Your task to perform on an android device: Open Google Maps Image 0: 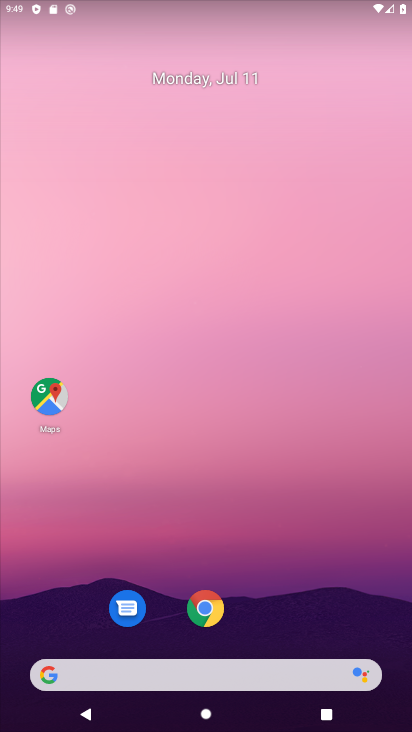
Step 0: click (32, 397)
Your task to perform on an android device: Open Google Maps Image 1: 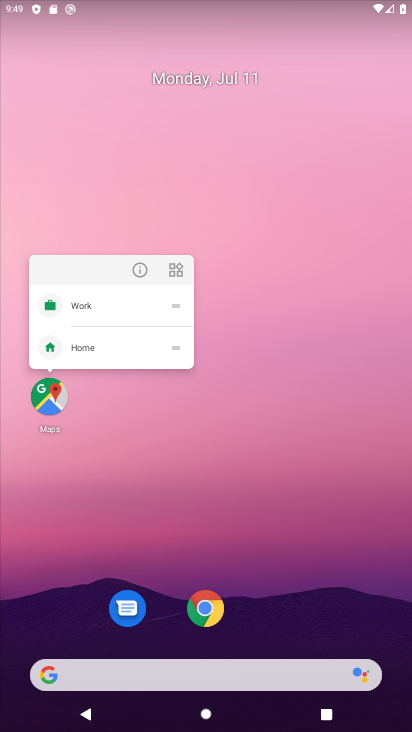
Step 1: click (33, 398)
Your task to perform on an android device: Open Google Maps Image 2: 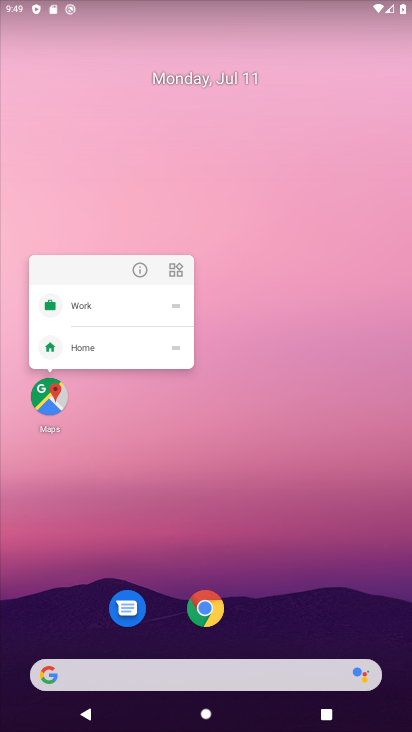
Step 2: click (49, 402)
Your task to perform on an android device: Open Google Maps Image 3: 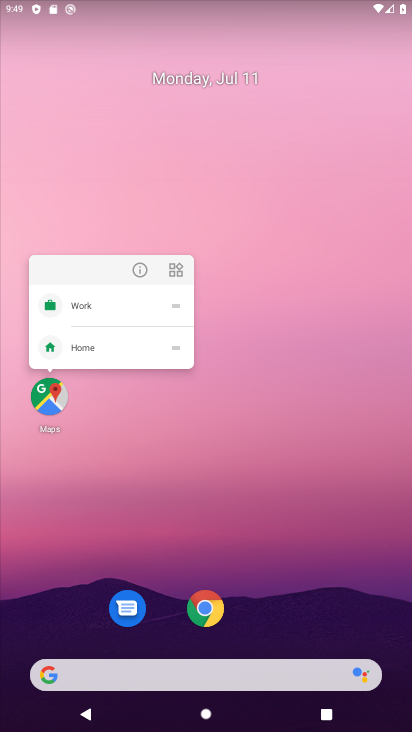
Step 3: click (49, 402)
Your task to perform on an android device: Open Google Maps Image 4: 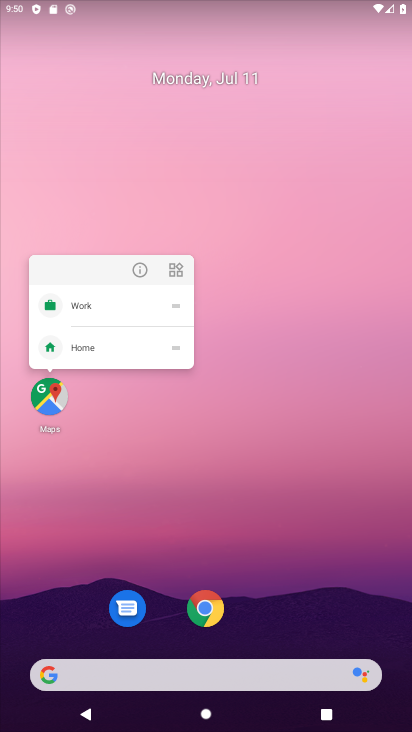
Step 4: click (49, 402)
Your task to perform on an android device: Open Google Maps Image 5: 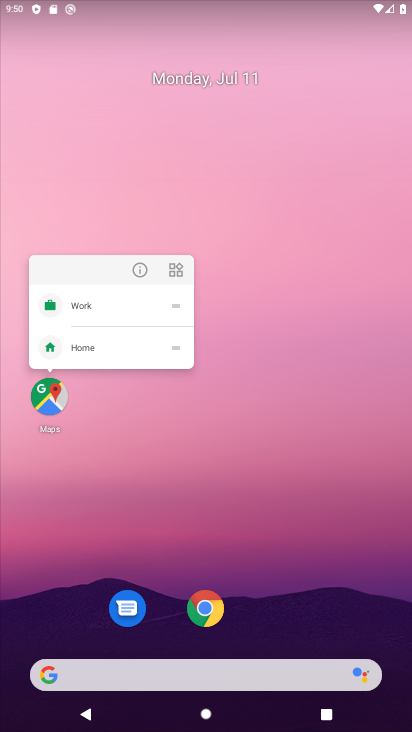
Step 5: task complete